Your task to perform on an android device: delete a single message in the gmail app Image 0: 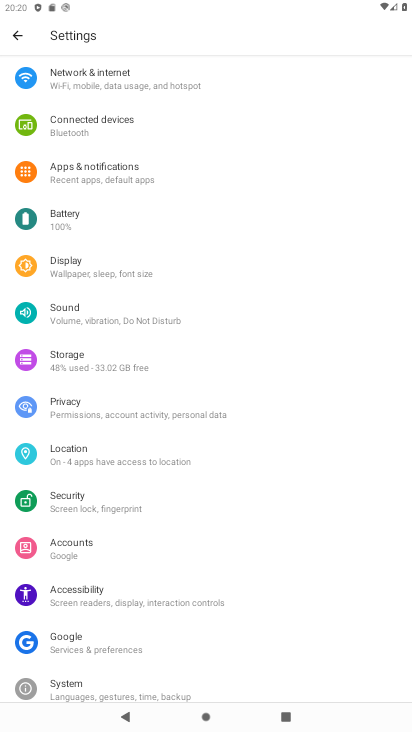
Step 0: press home button
Your task to perform on an android device: delete a single message in the gmail app Image 1: 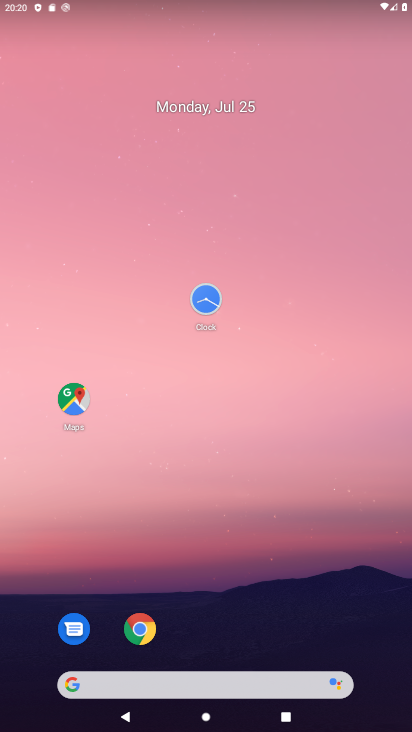
Step 1: drag from (243, 490) to (233, 33)
Your task to perform on an android device: delete a single message in the gmail app Image 2: 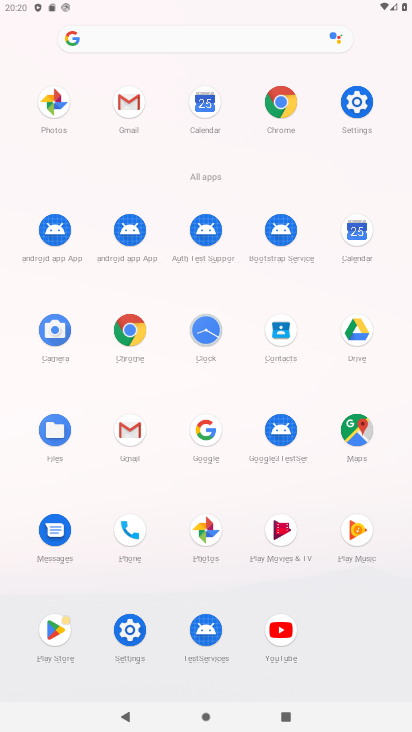
Step 2: click (132, 439)
Your task to perform on an android device: delete a single message in the gmail app Image 3: 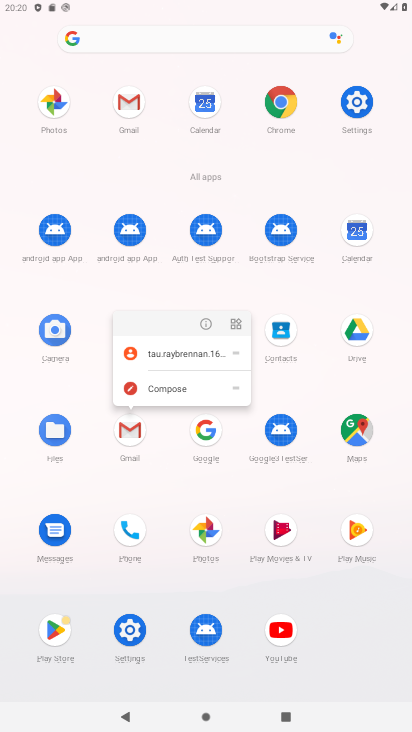
Step 3: click (124, 441)
Your task to perform on an android device: delete a single message in the gmail app Image 4: 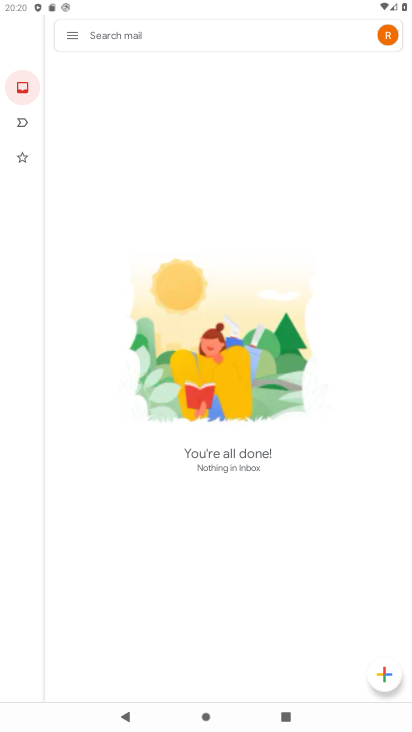
Step 4: task complete